Your task to perform on an android device: uninstall "Paramount+ | Peak Streaming" Image 0: 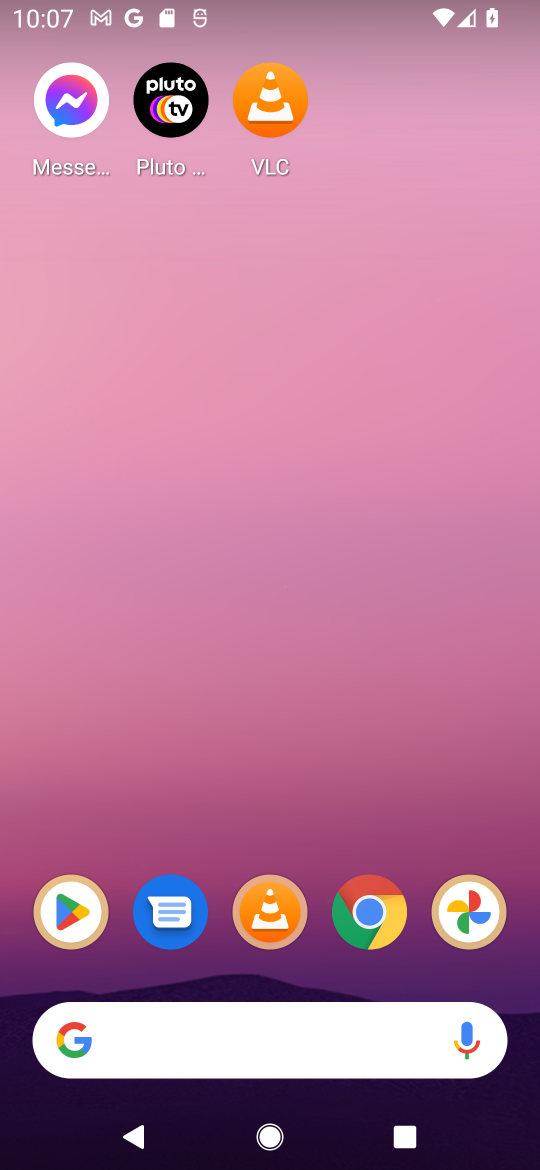
Step 0: press home button
Your task to perform on an android device: uninstall "Paramount+ | Peak Streaming" Image 1: 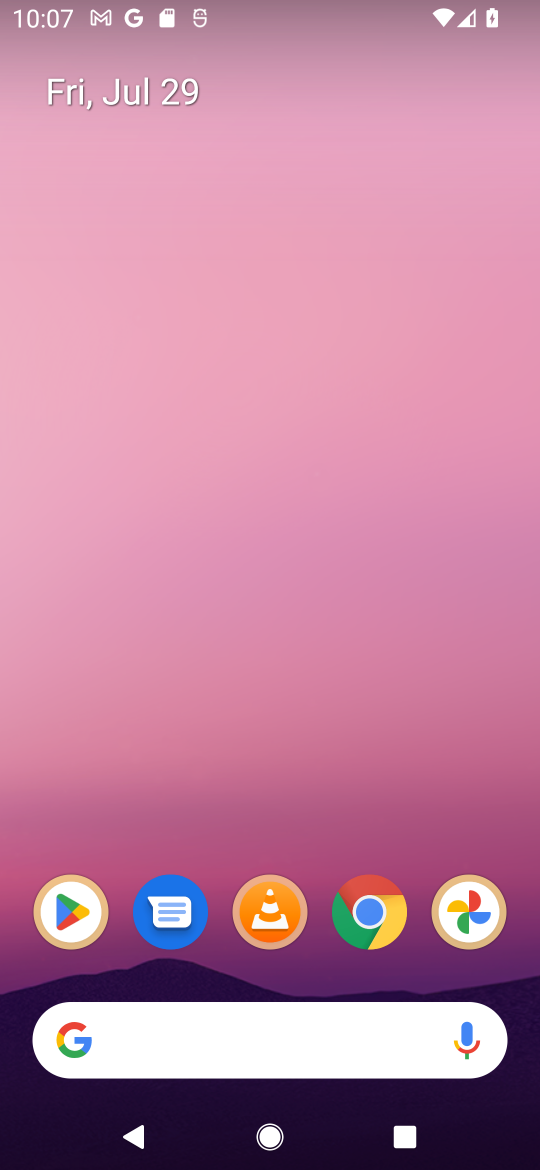
Step 1: drag from (277, 809) to (258, 297)
Your task to perform on an android device: uninstall "Paramount+ | Peak Streaming" Image 2: 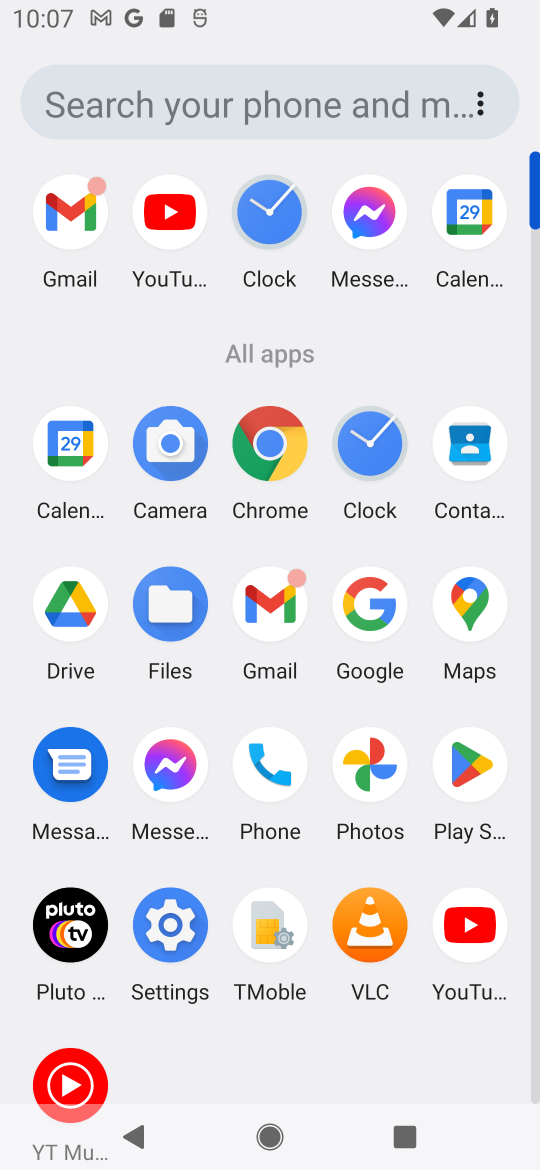
Step 2: click (449, 765)
Your task to perform on an android device: uninstall "Paramount+ | Peak Streaming" Image 3: 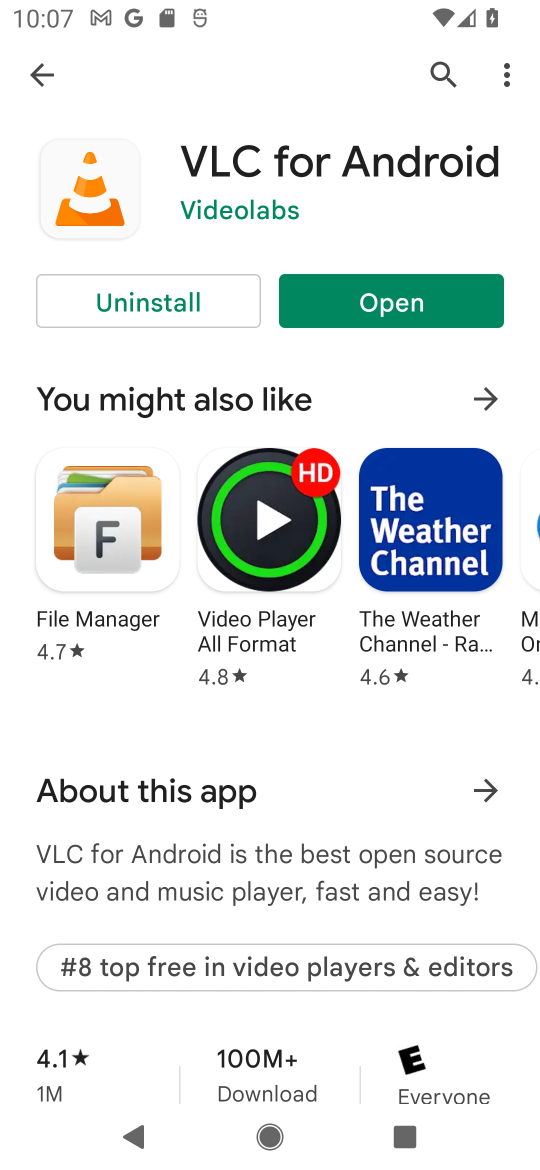
Step 3: click (38, 71)
Your task to perform on an android device: uninstall "Paramount+ | Peak Streaming" Image 4: 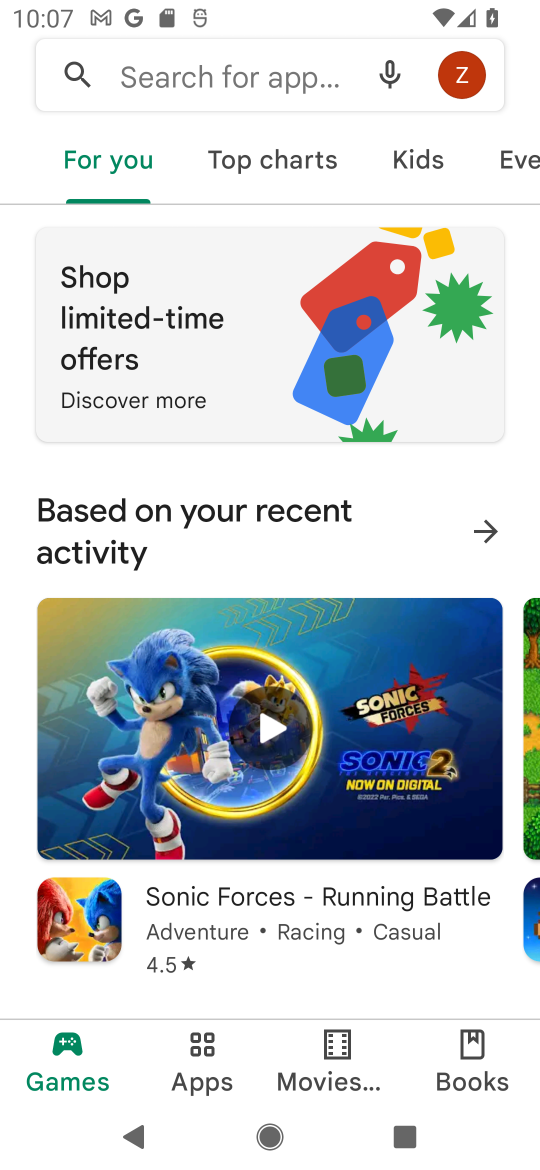
Step 4: click (235, 70)
Your task to perform on an android device: uninstall "Paramount+ | Peak Streaming" Image 5: 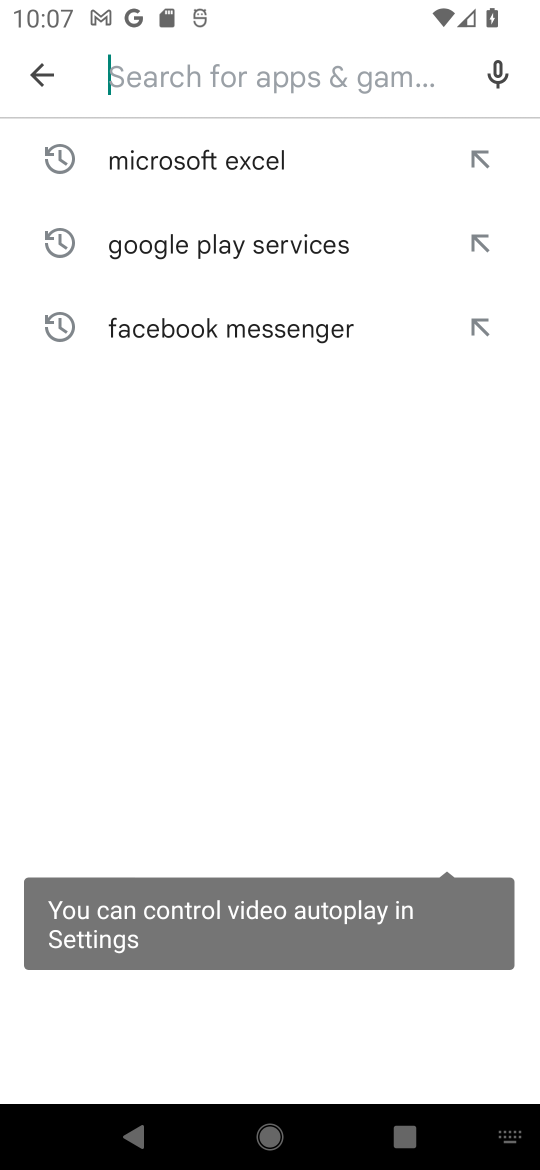
Step 5: type "Paramount+ | Peak Streaming"
Your task to perform on an android device: uninstall "Paramount+ | Peak Streaming" Image 6: 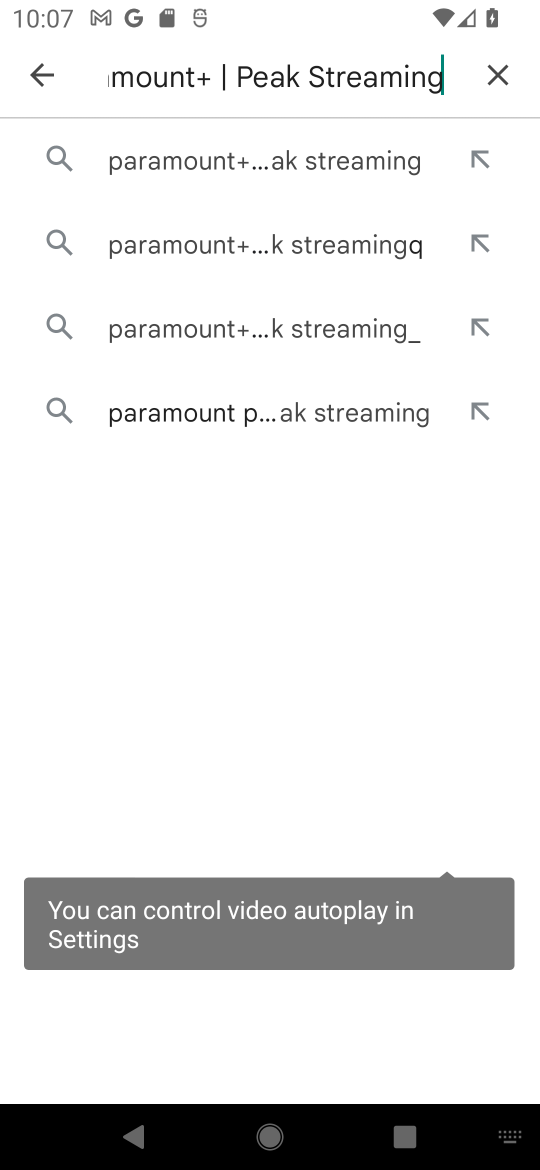
Step 6: click (254, 164)
Your task to perform on an android device: uninstall "Paramount+ | Peak Streaming" Image 7: 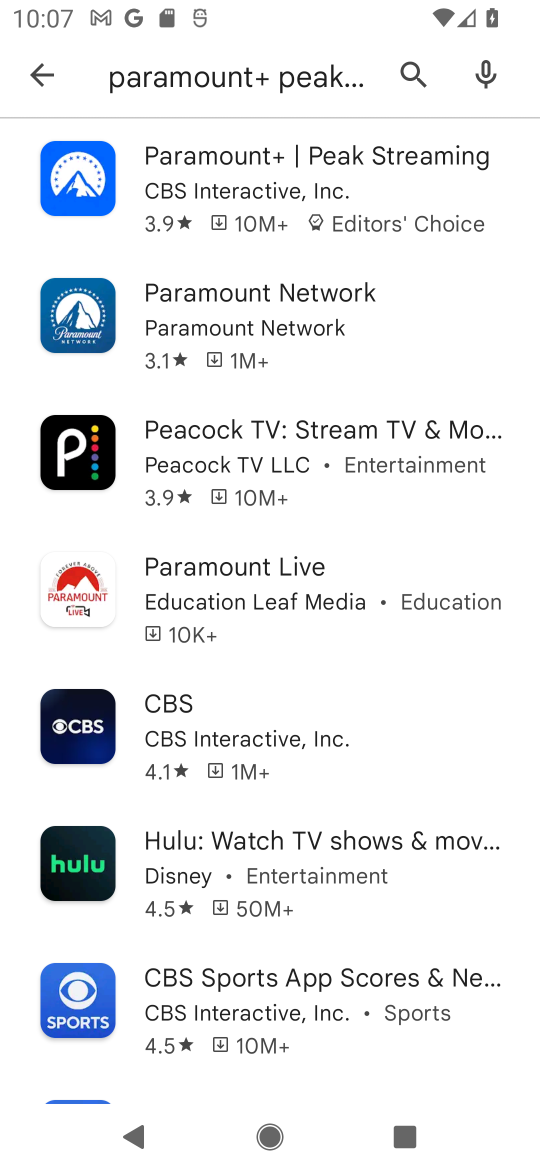
Step 7: task complete